Your task to perform on an android device: set the stopwatch Image 0: 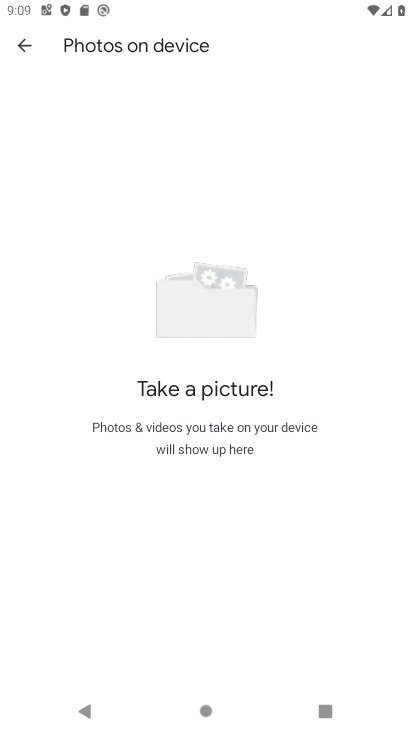
Step 0: press home button
Your task to perform on an android device: set the stopwatch Image 1: 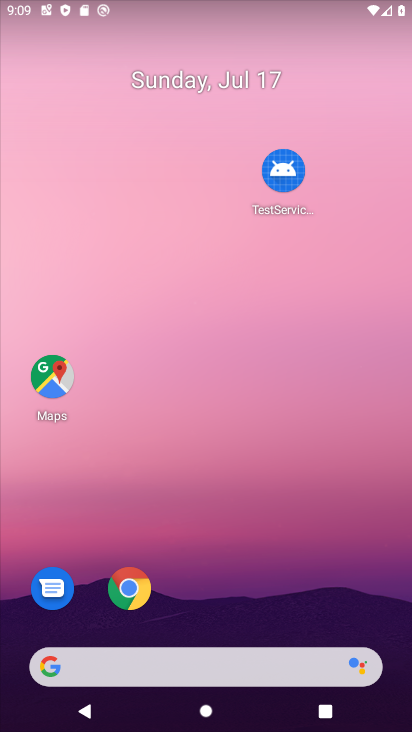
Step 1: drag from (229, 513) to (304, 4)
Your task to perform on an android device: set the stopwatch Image 2: 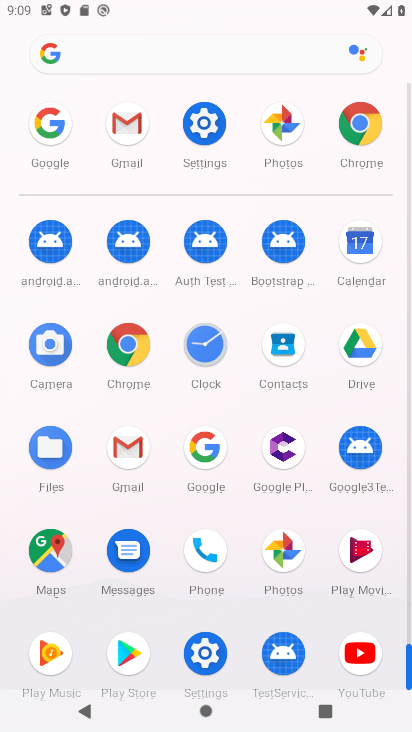
Step 2: click (215, 358)
Your task to perform on an android device: set the stopwatch Image 3: 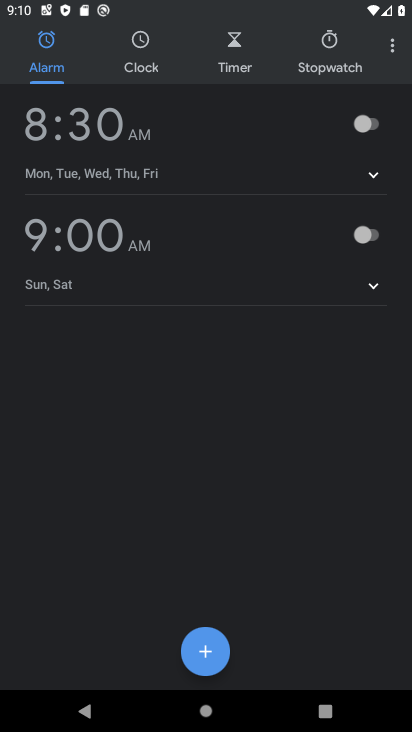
Step 3: click (326, 71)
Your task to perform on an android device: set the stopwatch Image 4: 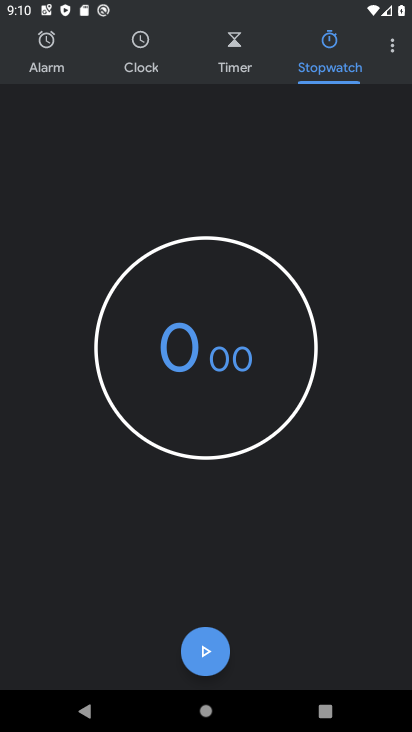
Step 4: click (210, 654)
Your task to perform on an android device: set the stopwatch Image 5: 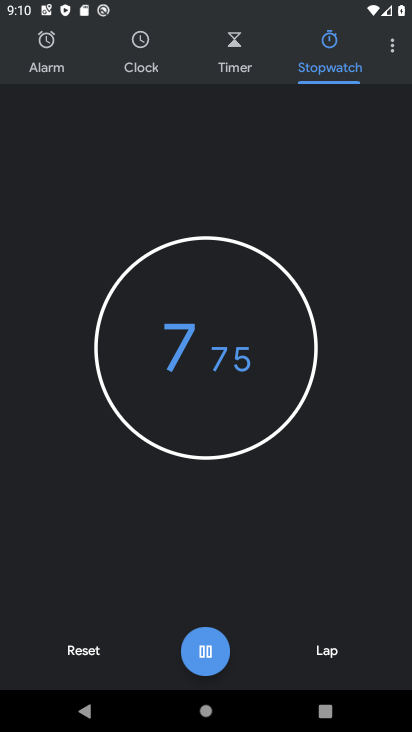
Step 5: task complete